Your task to perform on an android device: search for starred emails in the gmail app Image 0: 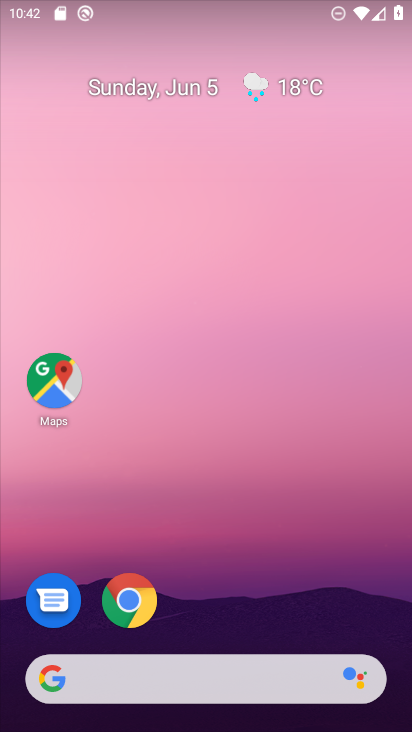
Step 0: drag from (222, 624) to (226, 250)
Your task to perform on an android device: search for starred emails in the gmail app Image 1: 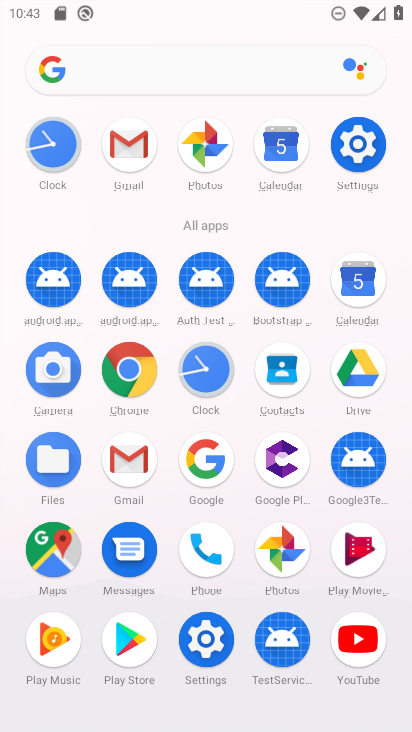
Step 1: click (117, 150)
Your task to perform on an android device: search for starred emails in the gmail app Image 2: 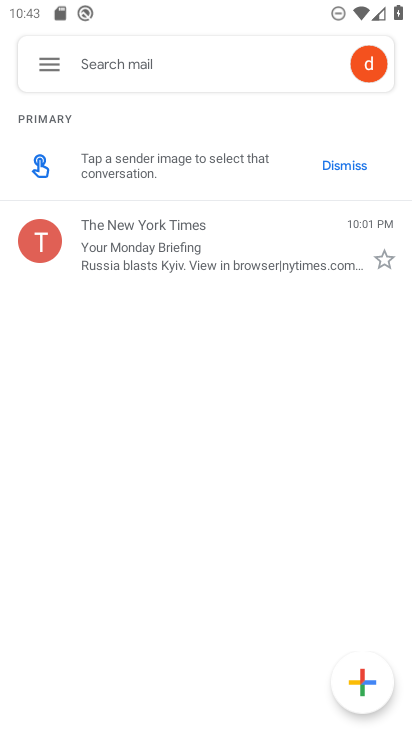
Step 2: click (16, 55)
Your task to perform on an android device: search for starred emails in the gmail app Image 3: 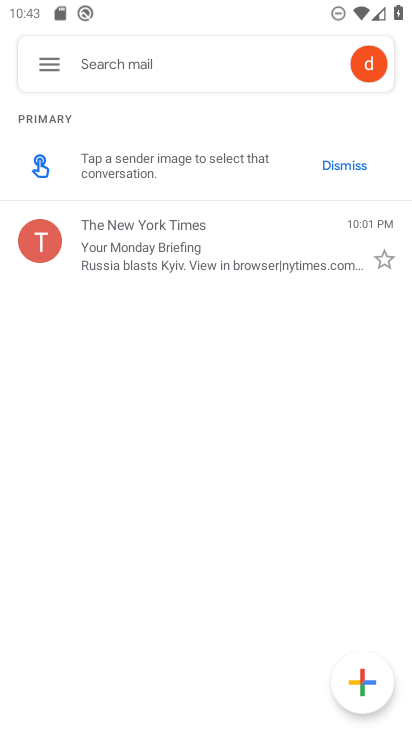
Step 3: click (50, 62)
Your task to perform on an android device: search for starred emails in the gmail app Image 4: 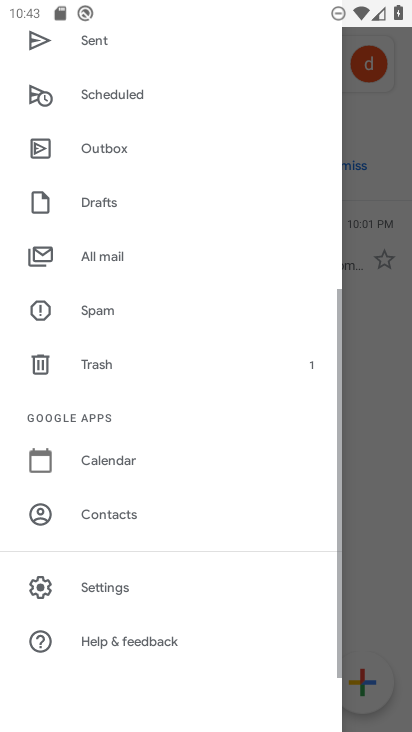
Step 4: drag from (121, 172) to (296, 675)
Your task to perform on an android device: search for starred emails in the gmail app Image 5: 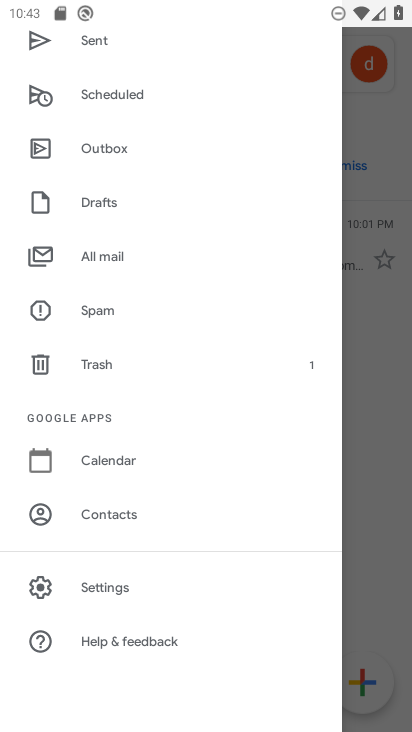
Step 5: drag from (232, 164) to (203, 663)
Your task to perform on an android device: search for starred emails in the gmail app Image 6: 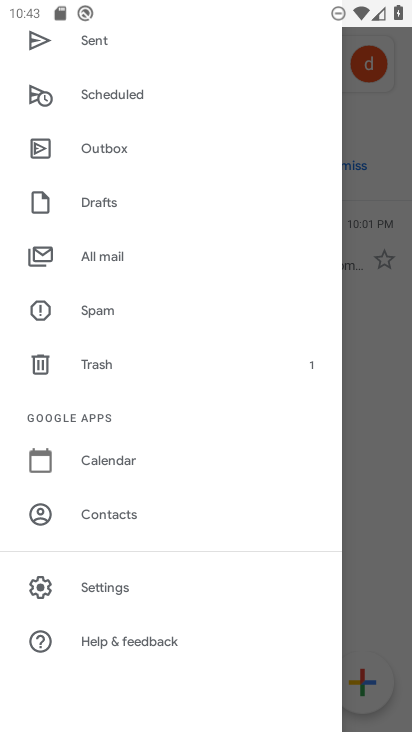
Step 6: drag from (142, 164) to (161, 728)
Your task to perform on an android device: search for starred emails in the gmail app Image 7: 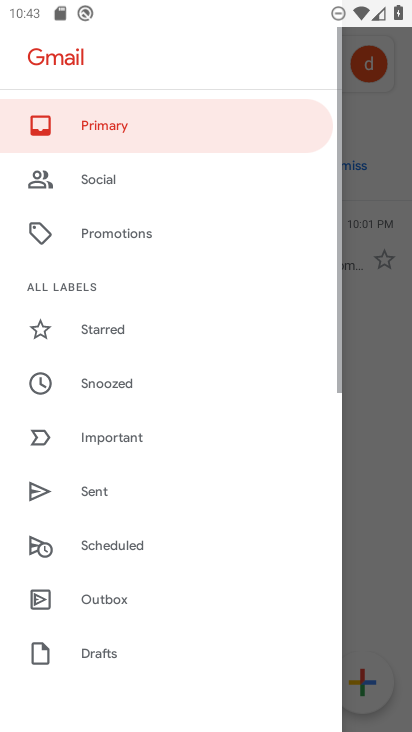
Step 7: click (136, 324)
Your task to perform on an android device: search for starred emails in the gmail app Image 8: 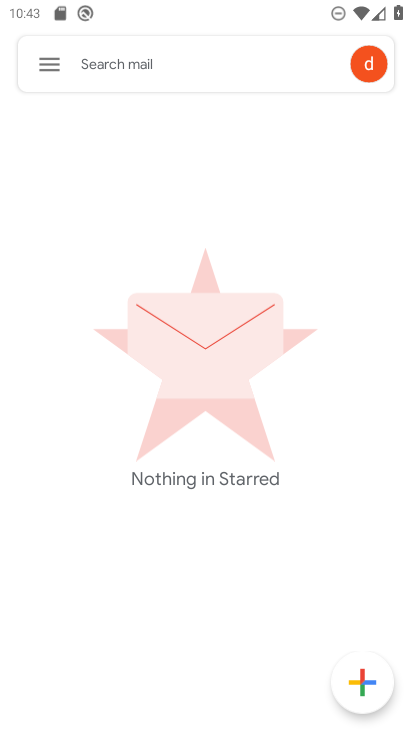
Step 8: task complete